Your task to perform on an android device: toggle pop-ups in chrome Image 0: 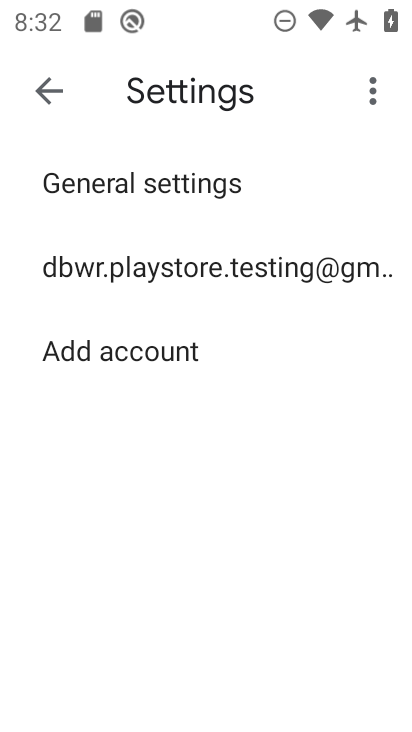
Step 0: press home button
Your task to perform on an android device: toggle pop-ups in chrome Image 1: 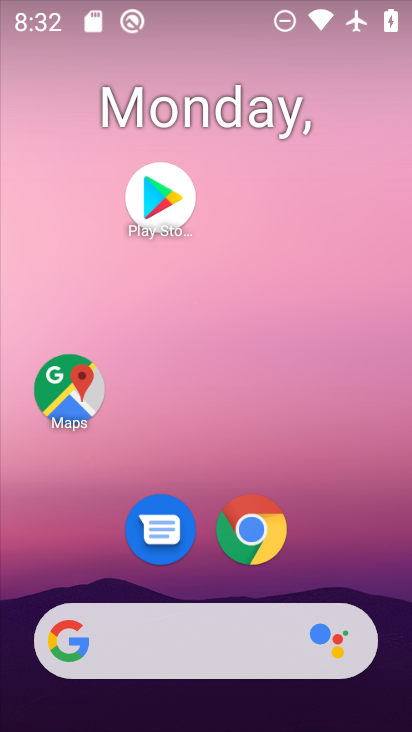
Step 1: click (254, 525)
Your task to perform on an android device: toggle pop-ups in chrome Image 2: 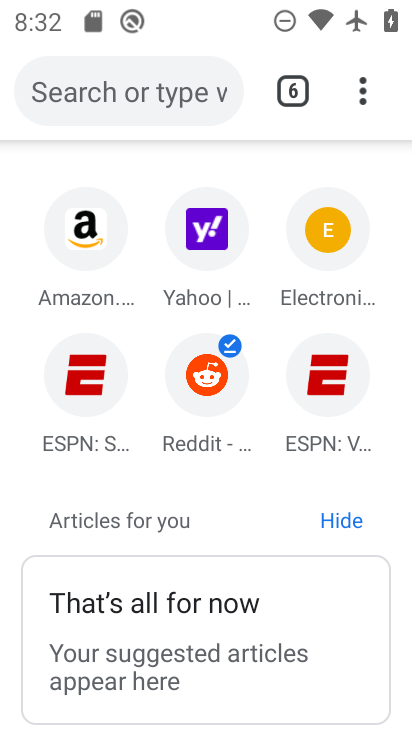
Step 2: click (361, 84)
Your task to perform on an android device: toggle pop-ups in chrome Image 3: 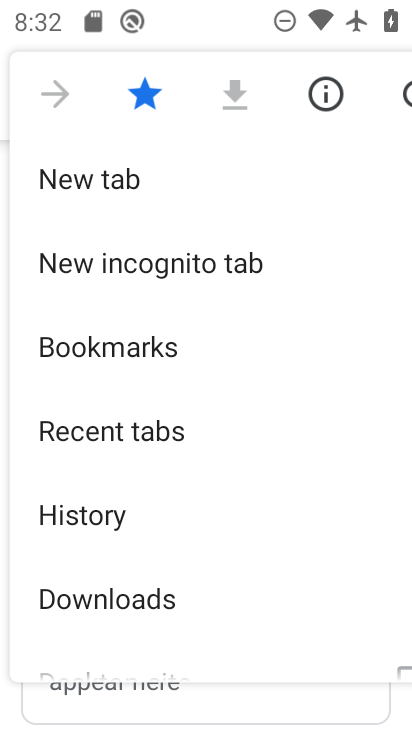
Step 3: drag from (238, 494) to (234, 188)
Your task to perform on an android device: toggle pop-ups in chrome Image 4: 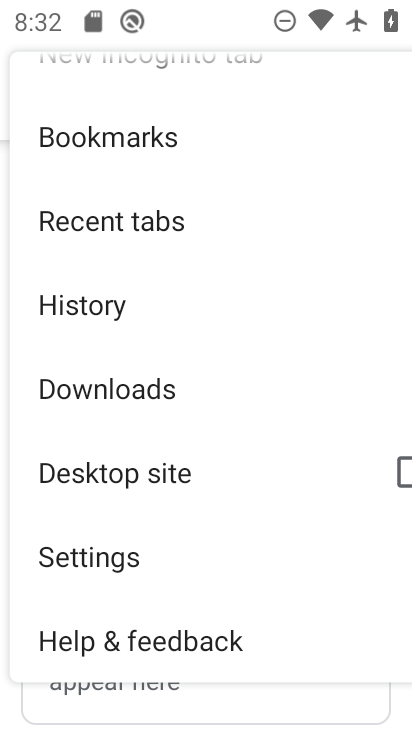
Step 4: click (120, 558)
Your task to perform on an android device: toggle pop-ups in chrome Image 5: 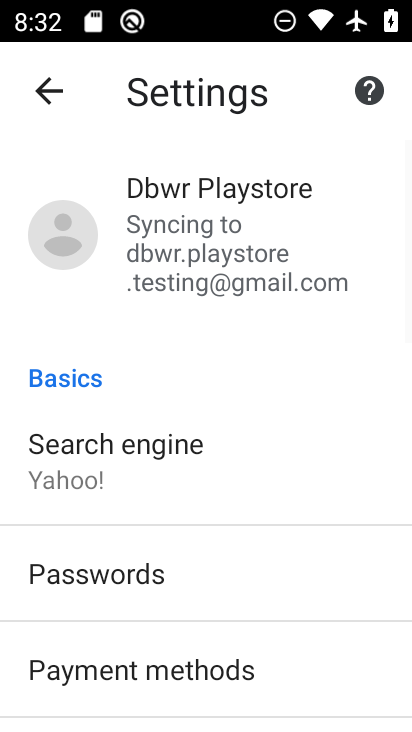
Step 5: drag from (308, 550) to (308, 260)
Your task to perform on an android device: toggle pop-ups in chrome Image 6: 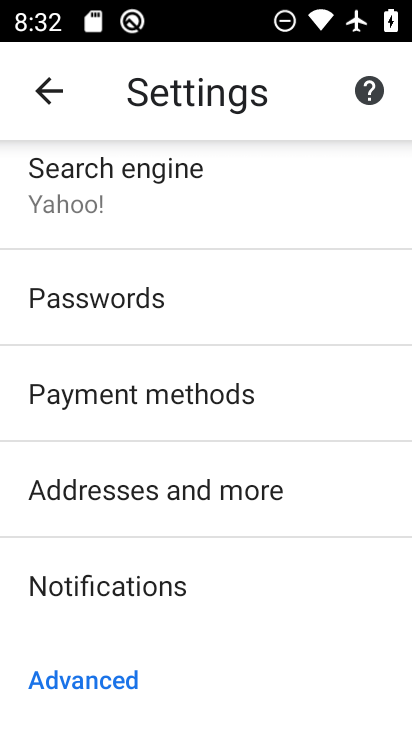
Step 6: drag from (225, 634) to (227, 440)
Your task to perform on an android device: toggle pop-ups in chrome Image 7: 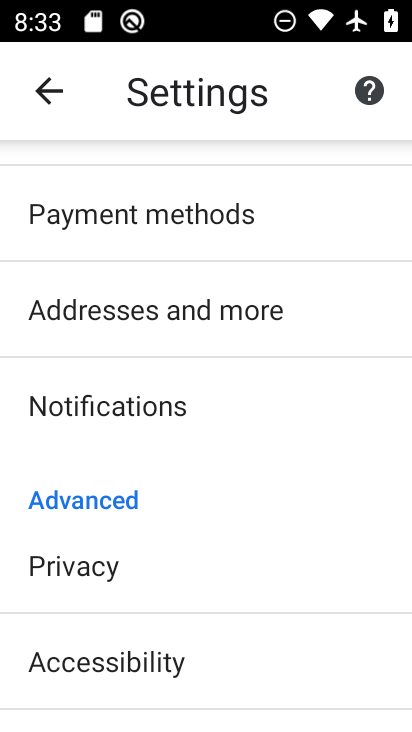
Step 7: drag from (238, 518) to (236, 284)
Your task to perform on an android device: toggle pop-ups in chrome Image 8: 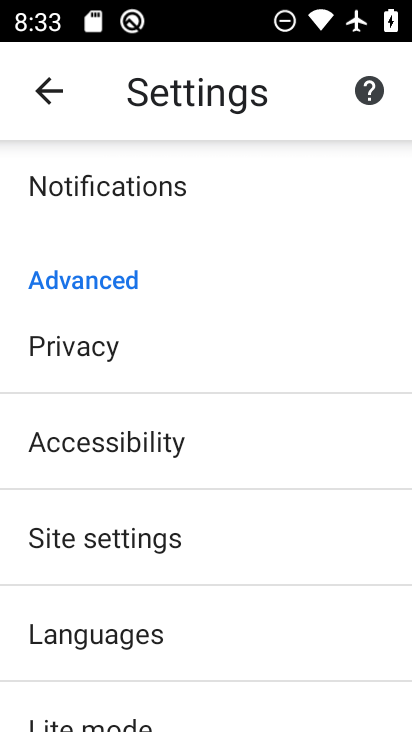
Step 8: click (124, 543)
Your task to perform on an android device: toggle pop-ups in chrome Image 9: 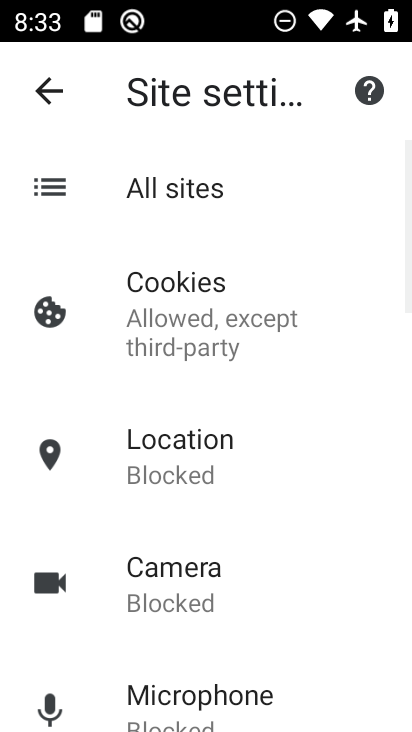
Step 9: drag from (263, 597) to (263, 392)
Your task to perform on an android device: toggle pop-ups in chrome Image 10: 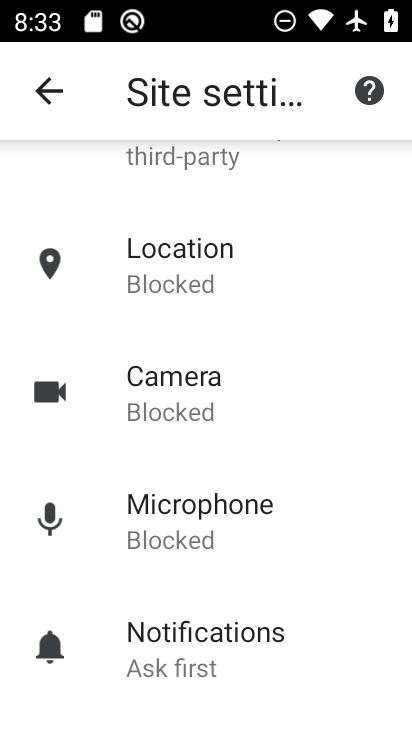
Step 10: drag from (269, 555) to (279, 345)
Your task to perform on an android device: toggle pop-ups in chrome Image 11: 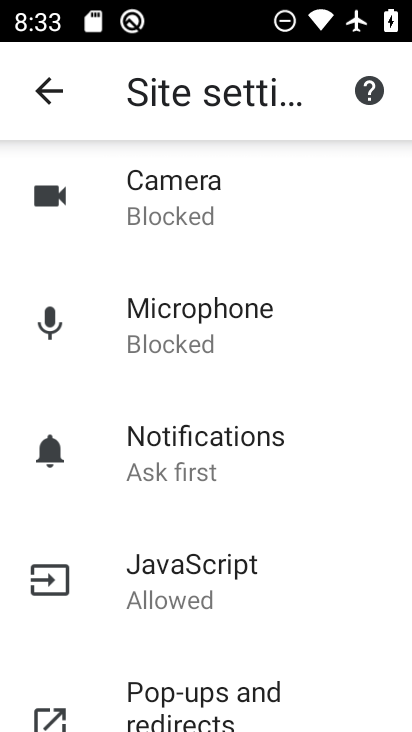
Step 11: click (184, 691)
Your task to perform on an android device: toggle pop-ups in chrome Image 12: 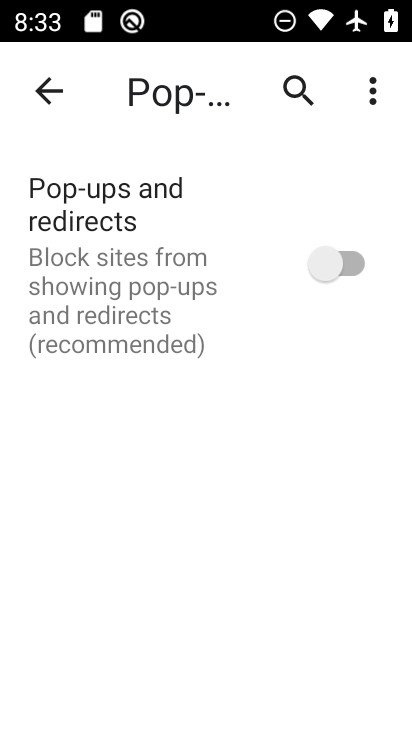
Step 12: click (336, 262)
Your task to perform on an android device: toggle pop-ups in chrome Image 13: 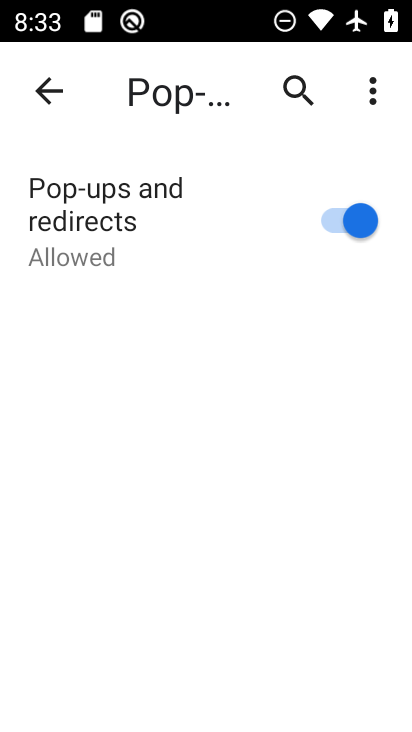
Step 13: task complete